Your task to perform on an android device: set default search engine in the chrome app Image 0: 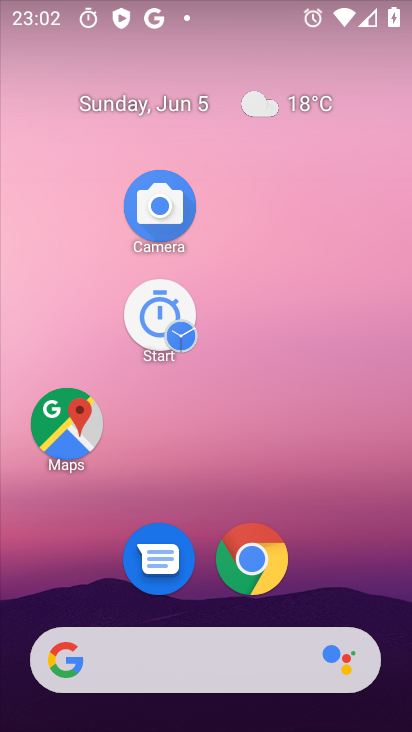
Step 0: drag from (253, 701) to (231, 0)
Your task to perform on an android device: set default search engine in the chrome app Image 1: 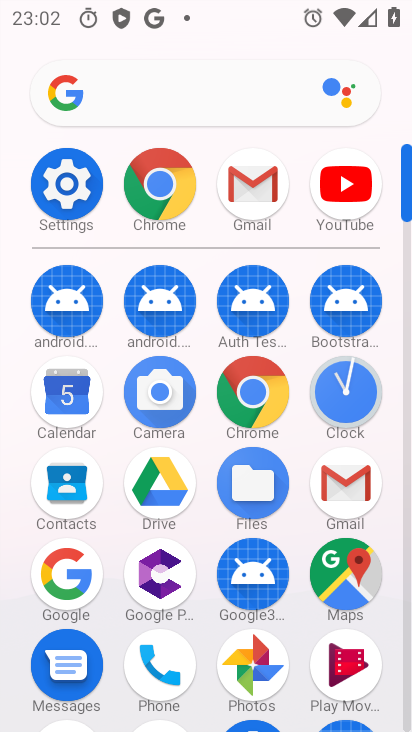
Step 1: click (145, 187)
Your task to perform on an android device: set default search engine in the chrome app Image 2: 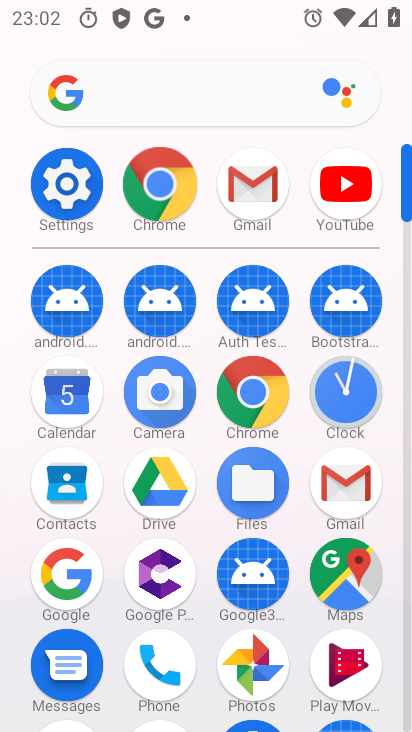
Step 2: click (147, 185)
Your task to perform on an android device: set default search engine in the chrome app Image 3: 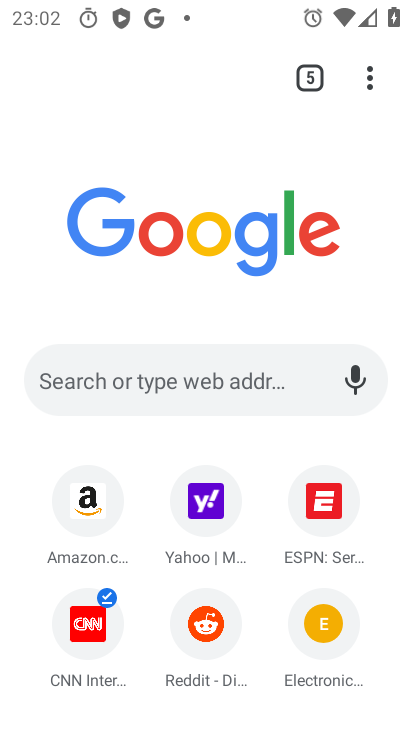
Step 3: click (359, 78)
Your task to perform on an android device: set default search engine in the chrome app Image 4: 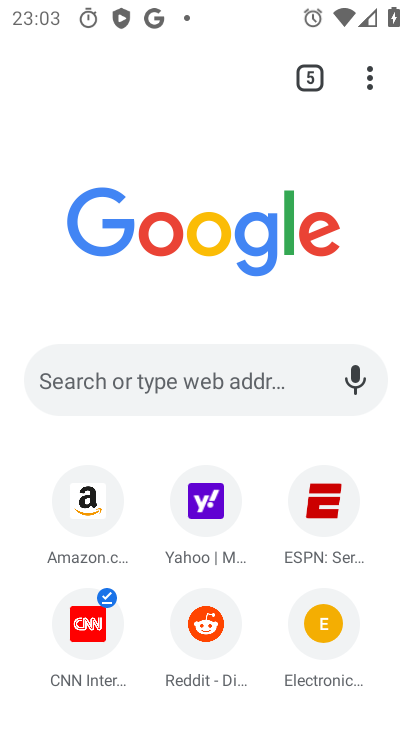
Step 4: click (367, 76)
Your task to perform on an android device: set default search engine in the chrome app Image 5: 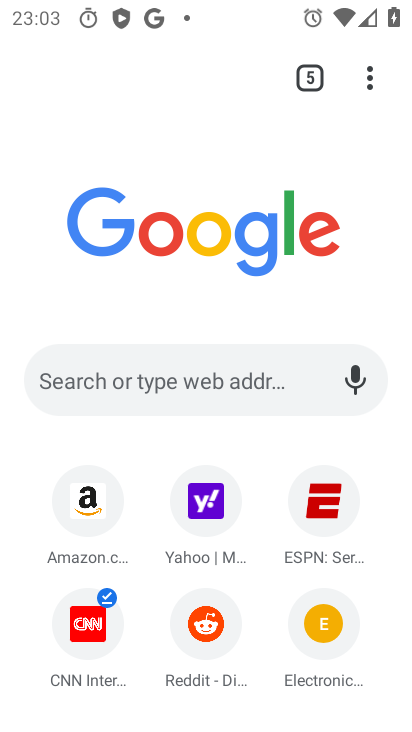
Step 5: drag from (367, 76) to (83, 616)
Your task to perform on an android device: set default search engine in the chrome app Image 6: 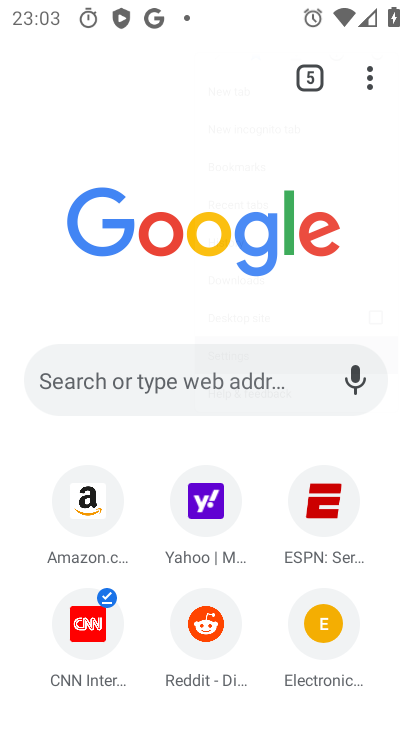
Step 6: click (96, 639)
Your task to perform on an android device: set default search engine in the chrome app Image 7: 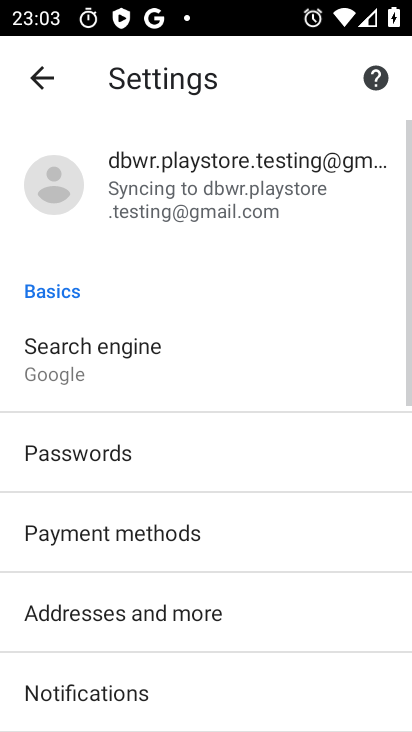
Step 7: click (53, 361)
Your task to perform on an android device: set default search engine in the chrome app Image 8: 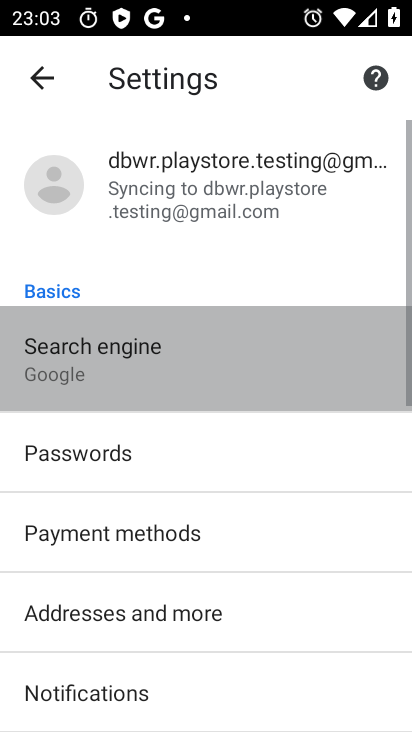
Step 8: click (54, 360)
Your task to perform on an android device: set default search engine in the chrome app Image 9: 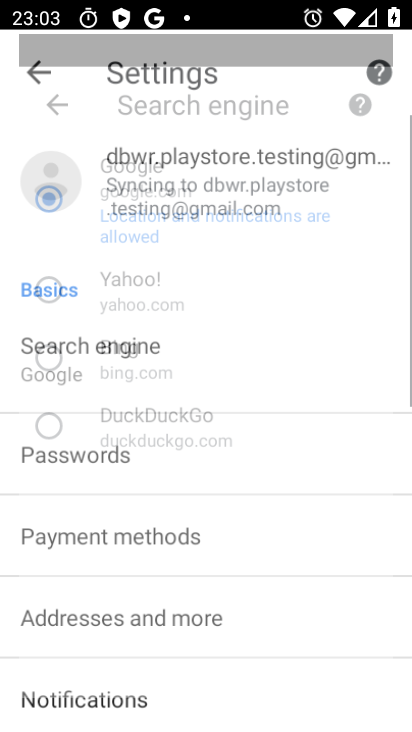
Step 9: click (55, 365)
Your task to perform on an android device: set default search engine in the chrome app Image 10: 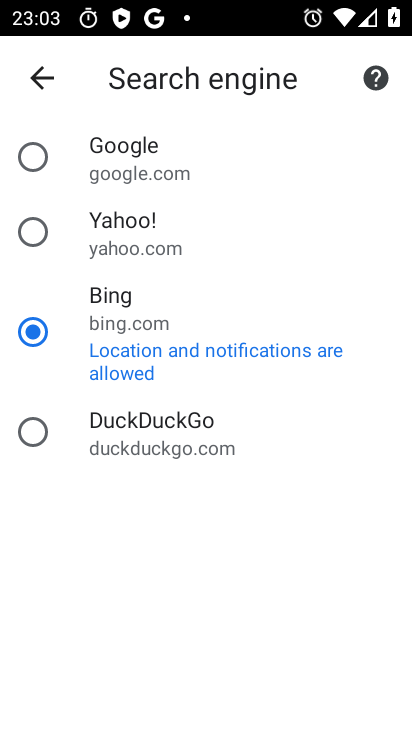
Step 10: click (32, 143)
Your task to perform on an android device: set default search engine in the chrome app Image 11: 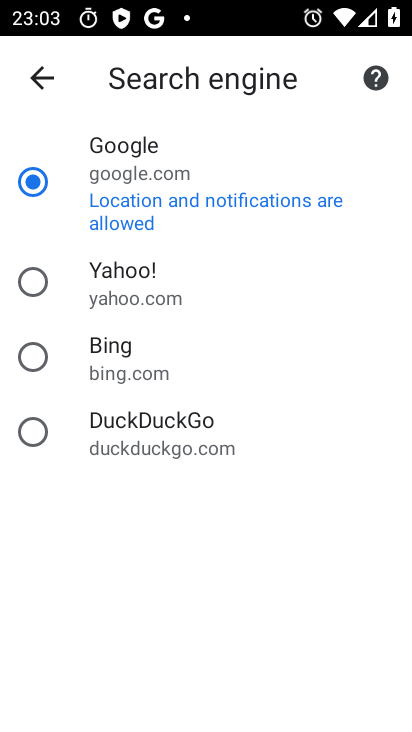
Step 11: task complete